Your task to perform on an android device: turn off javascript in the chrome app Image 0: 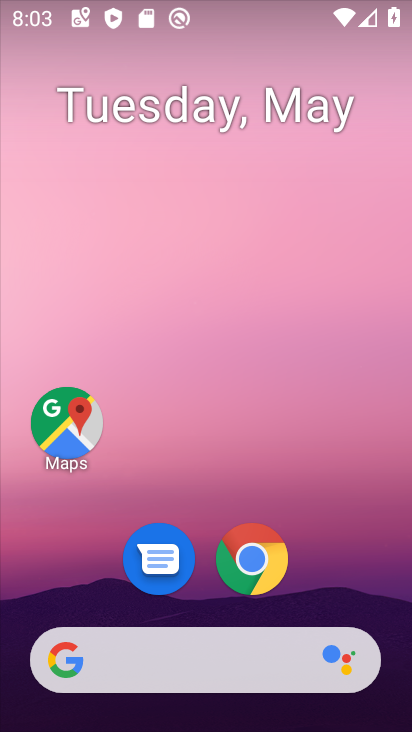
Step 0: drag from (330, 557) to (221, 0)
Your task to perform on an android device: turn off javascript in the chrome app Image 1: 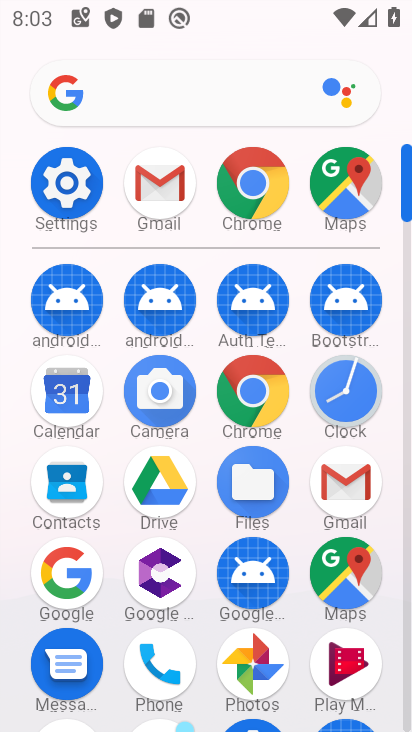
Step 1: click (260, 206)
Your task to perform on an android device: turn off javascript in the chrome app Image 2: 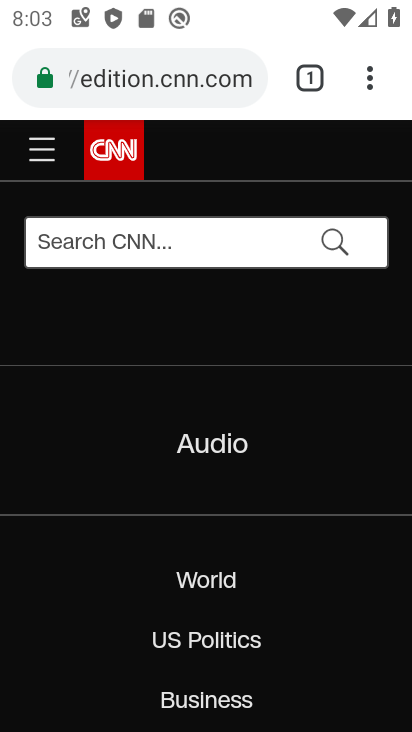
Step 2: drag from (368, 88) to (118, 625)
Your task to perform on an android device: turn off javascript in the chrome app Image 3: 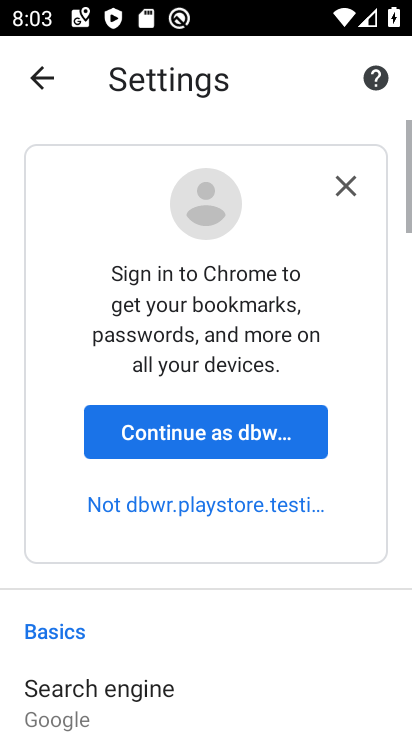
Step 3: drag from (134, 650) to (222, 111)
Your task to perform on an android device: turn off javascript in the chrome app Image 4: 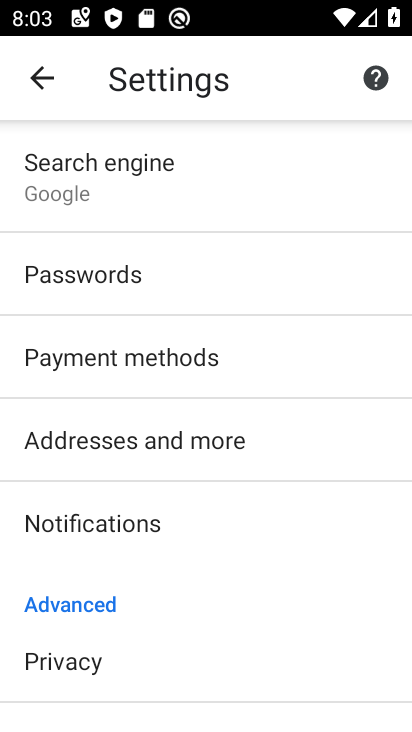
Step 4: drag from (222, 585) to (317, 133)
Your task to perform on an android device: turn off javascript in the chrome app Image 5: 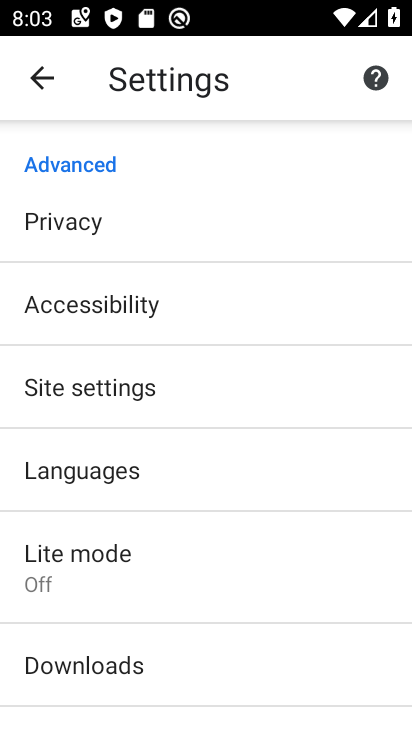
Step 5: click (83, 376)
Your task to perform on an android device: turn off javascript in the chrome app Image 6: 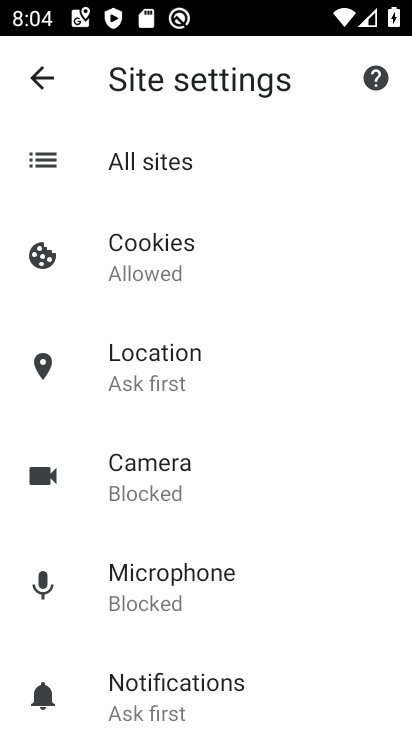
Step 6: drag from (199, 631) to (260, 223)
Your task to perform on an android device: turn off javascript in the chrome app Image 7: 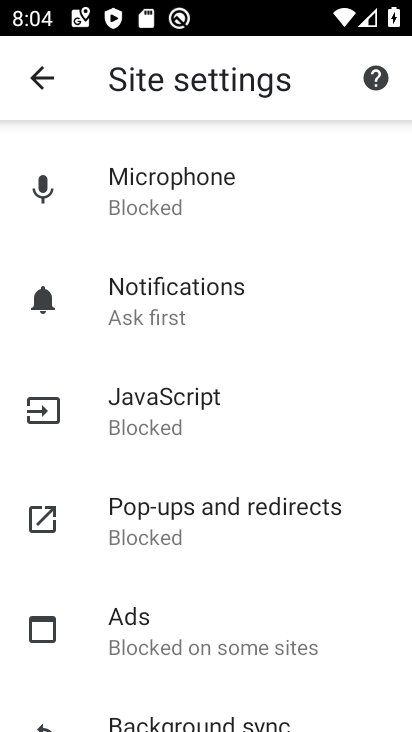
Step 7: click (140, 406)
Your task to perform on an android device: turn off javascript in the chrome app Image 8: 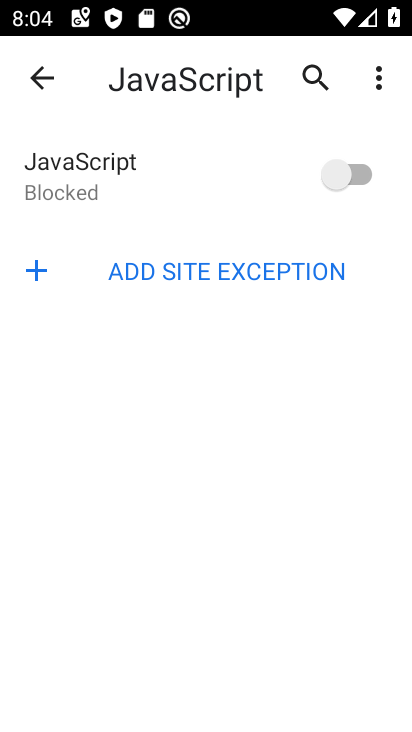
Step 8: task complete